Your task to perform on an android device: Search for sushi restaurants on Maps Image 0: 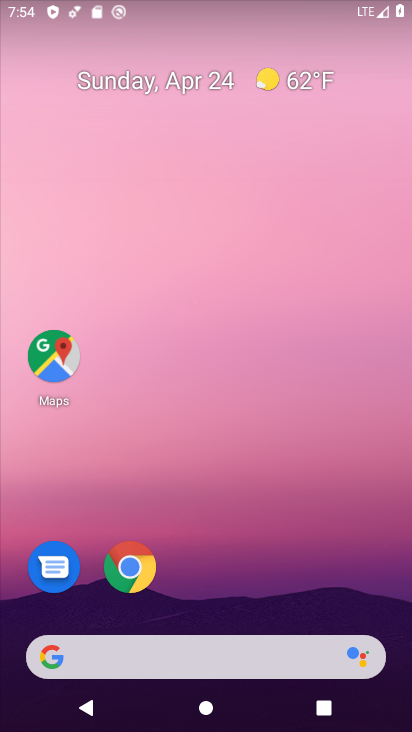
Step 0: click (51, 359)
Your task to perform on an android device: Search for sushi restaurants on Maps Image 1: 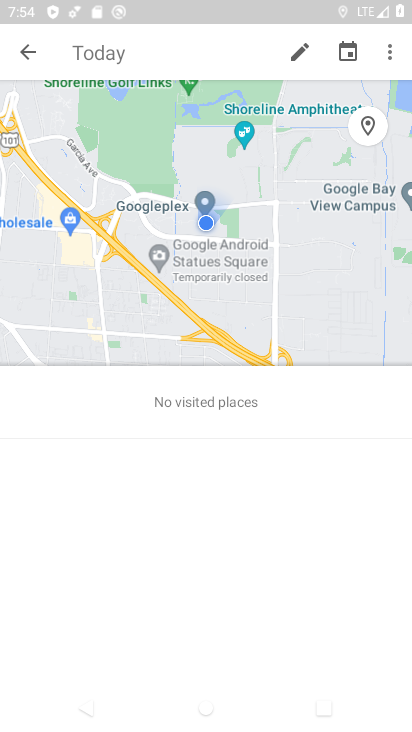
Step 1: press back button
Your task to perform on an android device: Search for sushi restaurants on Maps Image 2: 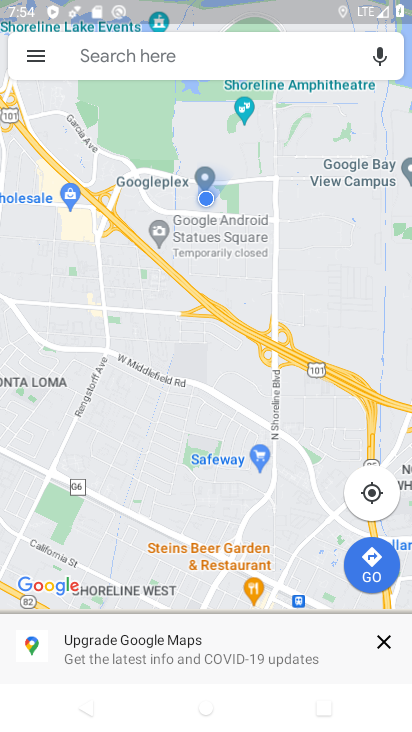
Step 2: click (260, 58)
Your task to perform on an android device: Search for sushi restaurants on Maps Image 3: 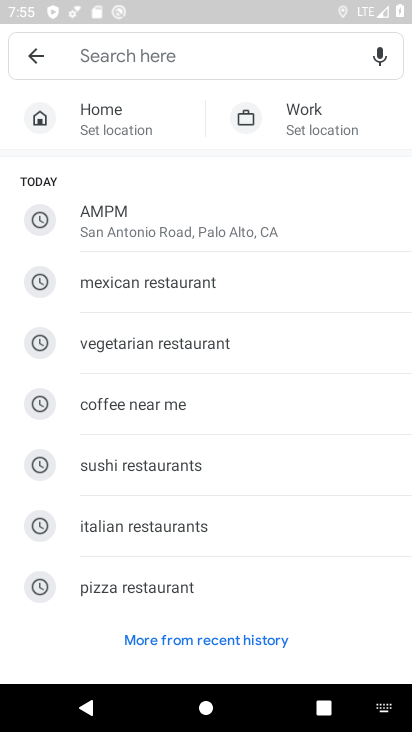
Step 3: type "sushi restaurants"
Your task to perform on an android device: Search for sushi restaurants on Maps Image 4: 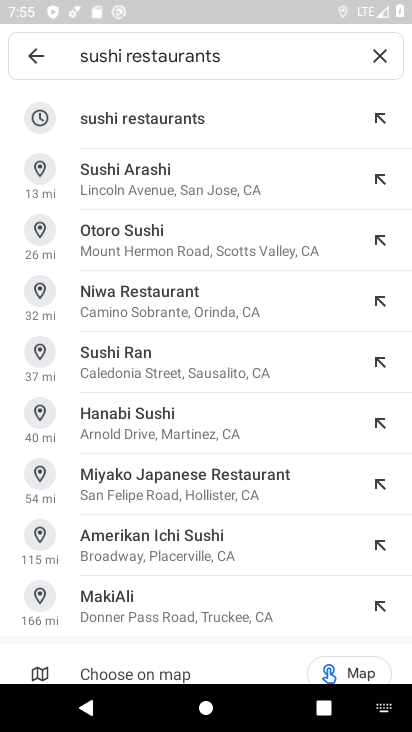
Step 4: click (106, 126)
Your task to perform on an android device: Search for sushi restaurants on Maps Image 5: 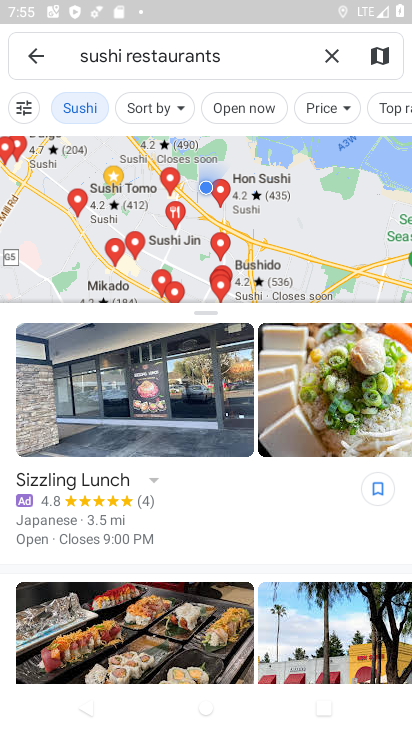
Step 5: task complete